Your task to perform on an android device: Go to sound settings Image 0: 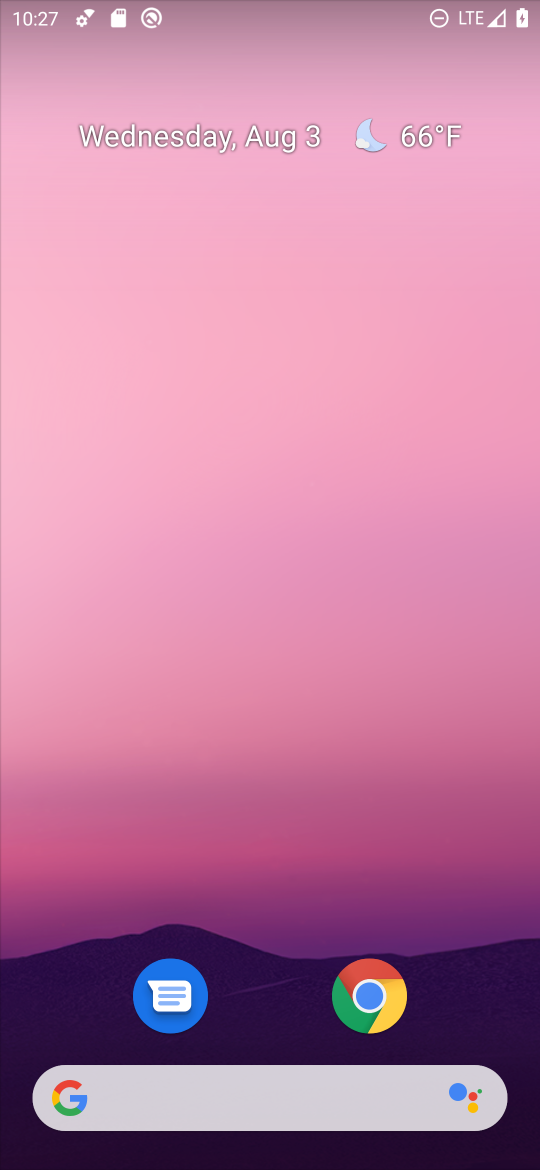
Step 0: drag from (281, 852) to (371, 0)
Your task to perform on an android device: Go to sound settings Image 1: 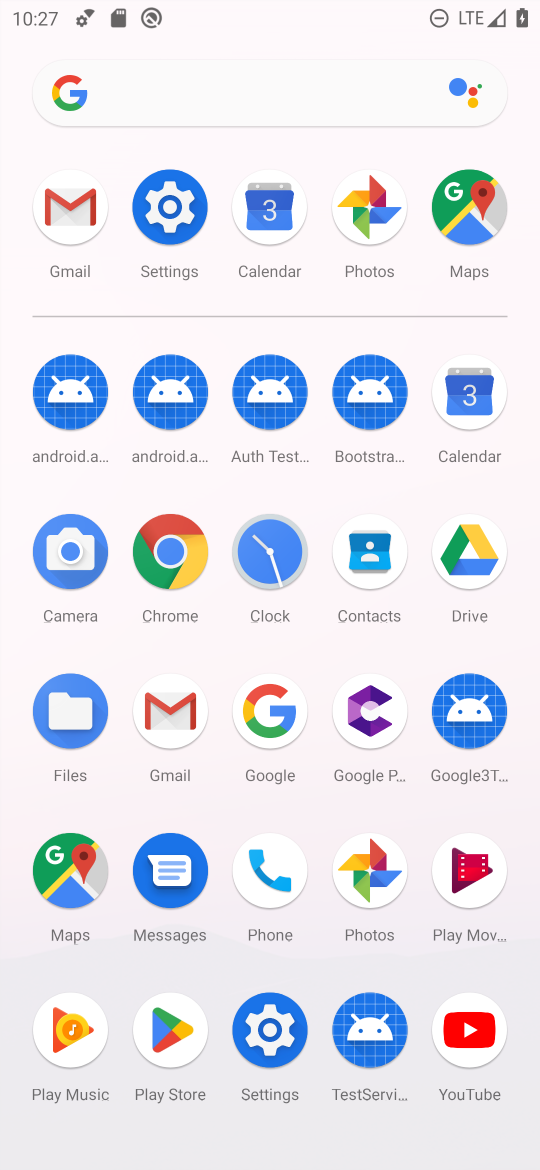
Step 1: click (162, 208)
Your task to perform on an android device: Go to sound settings Image 2: 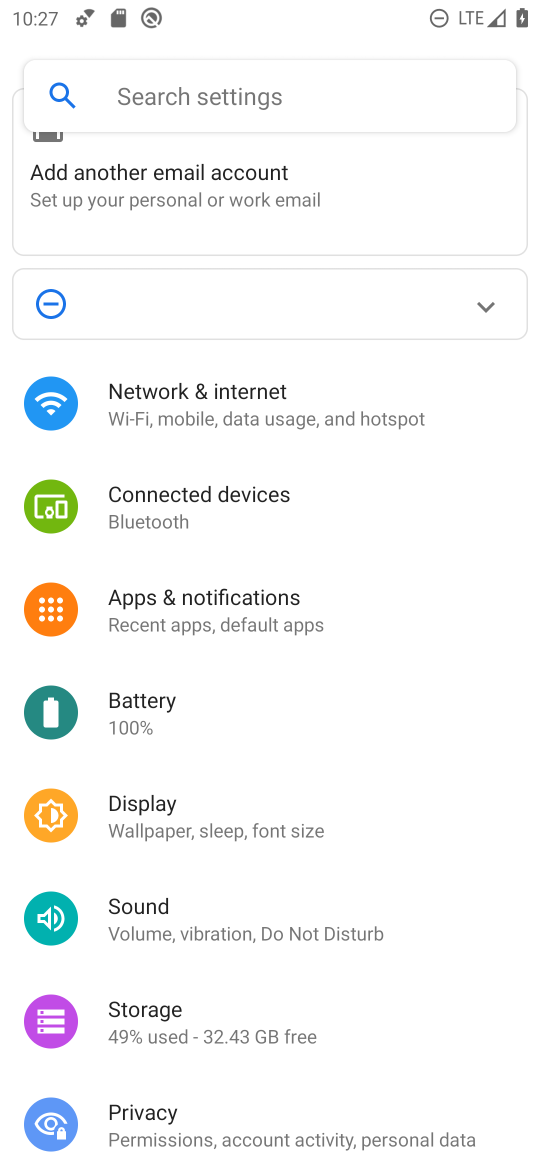
Step 2: click (217, 910)
Your task to perform on an android device: Go to sound settings Image 3: 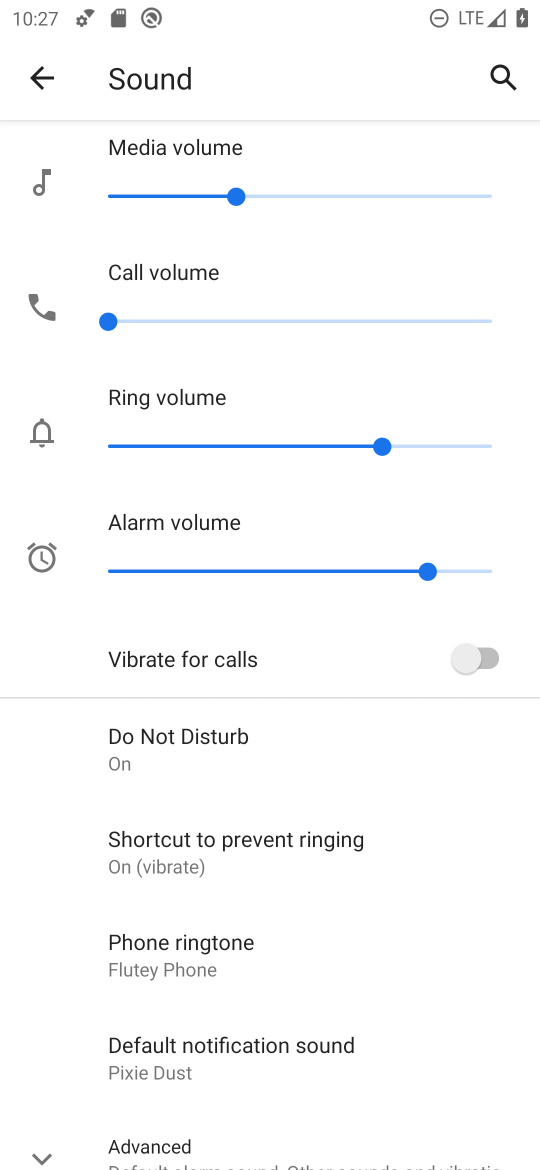
Step 3: task complete